Your task to perform on an android device: Open wifi settings Image 0: 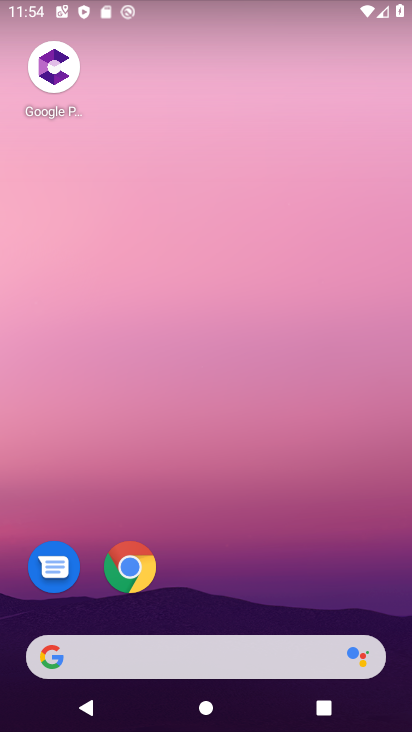
Step 0: drag from (306, 583) to (331, 31)
Your task to perform on an android device: Open wifi settings Image 1: 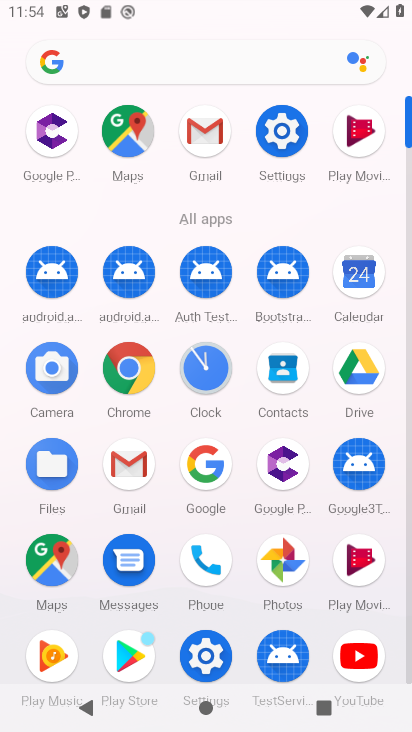
Step 1: click (292, 121)
Your task to perform on an android device: Open wifi settings Image 2: 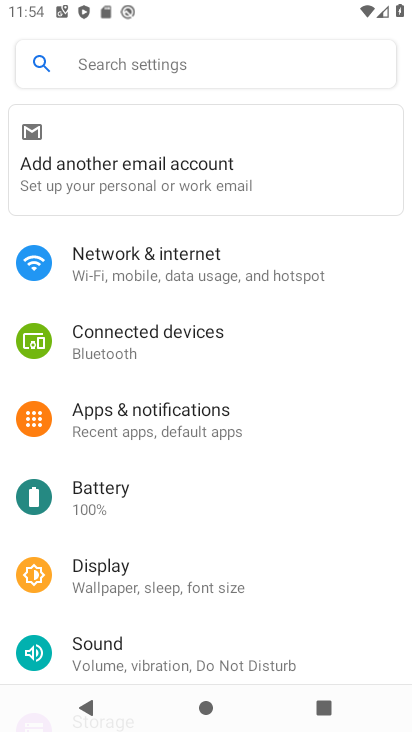
Step 2: click (272, 276)
Your task to perform on an android device: Open wifi settings Image 3: 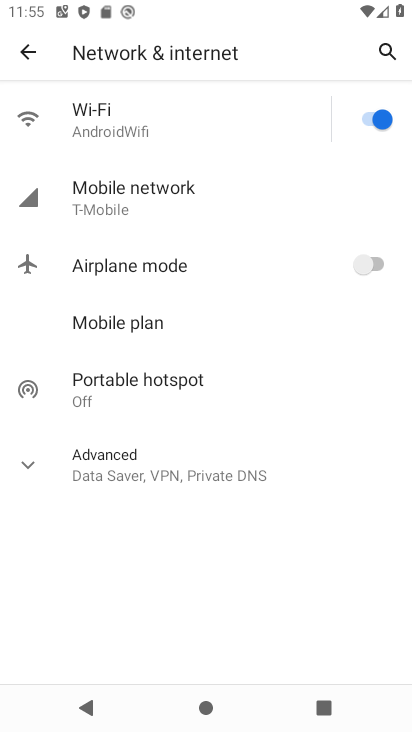
Step 3: click (251, 122)
Your task to perform on an android device: Open wifi settings Image 4: 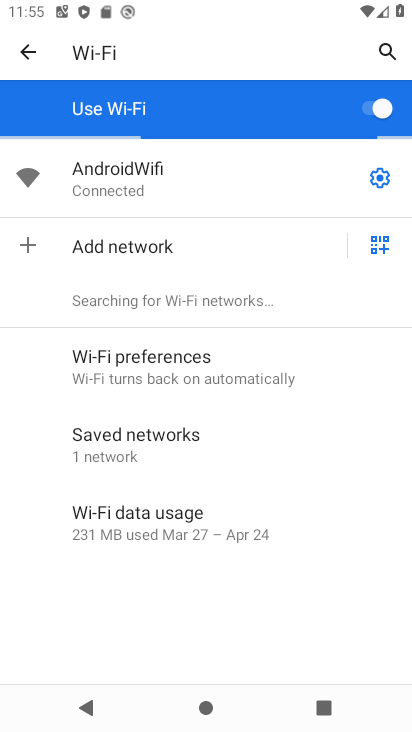
Step 4: task complete